Your task to perform on an android device: Open the calendar and show me this week's events? Image 0: 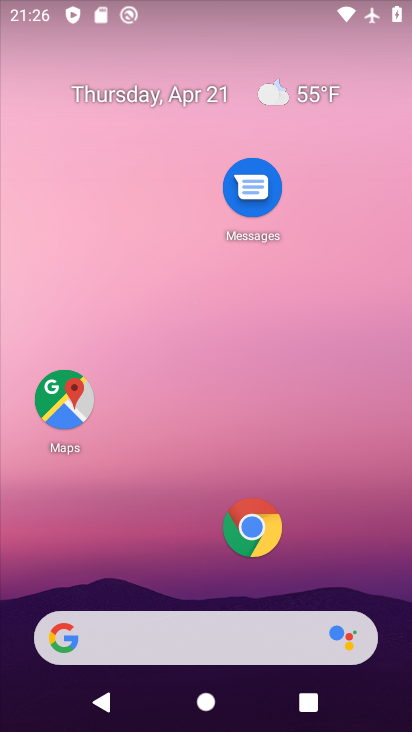
Step 0: drag from (170, 646) to (258, 160)
Your task to perform on an android device: Open the calendar and show me this week's events? Image 1: 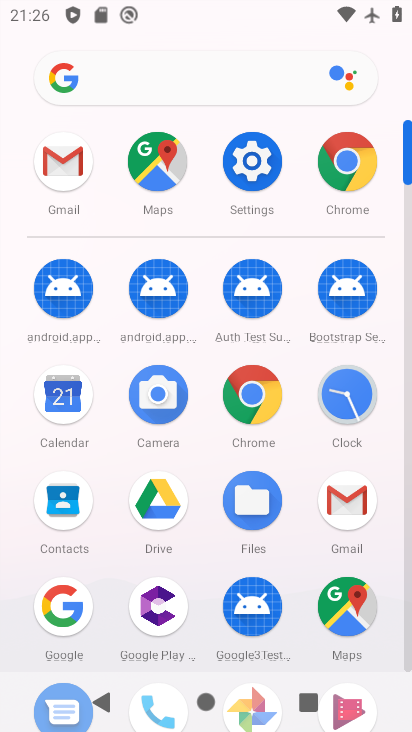
Step 1: click (63, 404)
Your task to perform on an android device: Open the calendar and show me this week's events? Image 2: 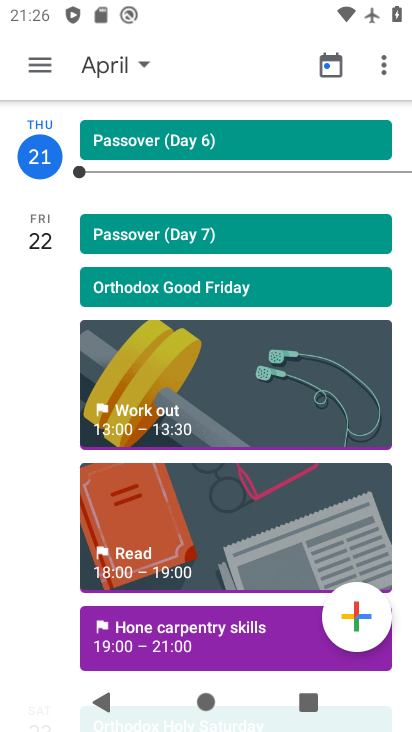
Step 2: click (111, 65)
Your task to perform on an android device: Open the calendar and show me this week's events? Image 3: 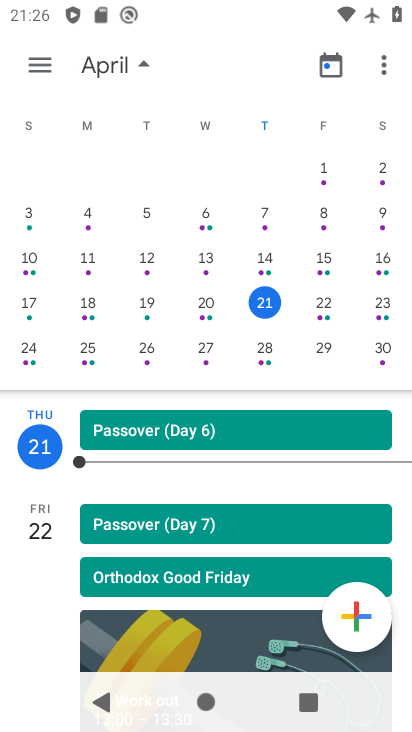
Step 3: click (44, 66)
Your task to perform on an android device: Open the calendar and show me this week's events? Image 4: 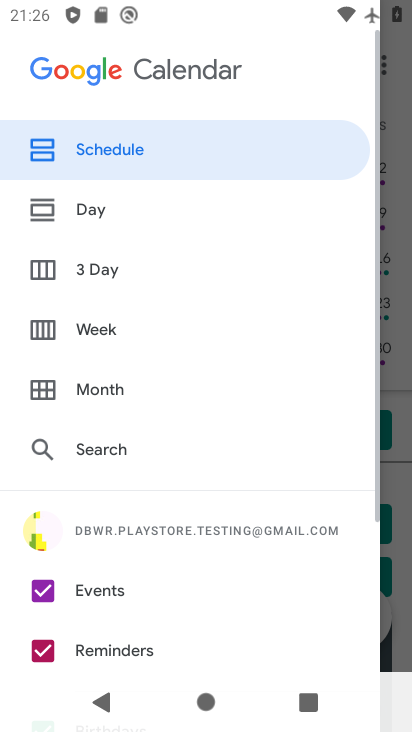
Step 4: click (103, 325)
Your task to perform on an android device: Open the calendar and show me this week's events? Image 5: 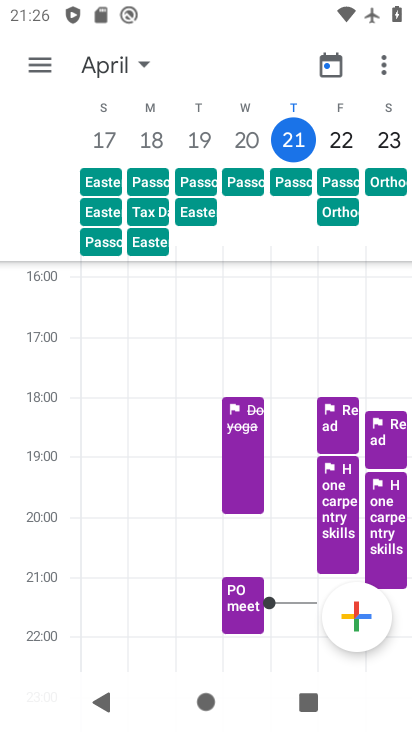
Step 5: click (47, 60)
Your task to perform on an android device: Open the calendar and show me this week's events? Image 6: 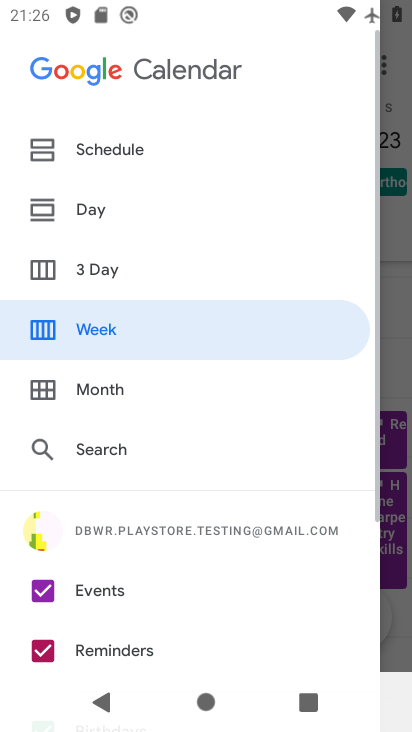
Step 6: click (112, 143)
Your task to perform on an android device: Open the calendar and show me this week's events? Image 7: 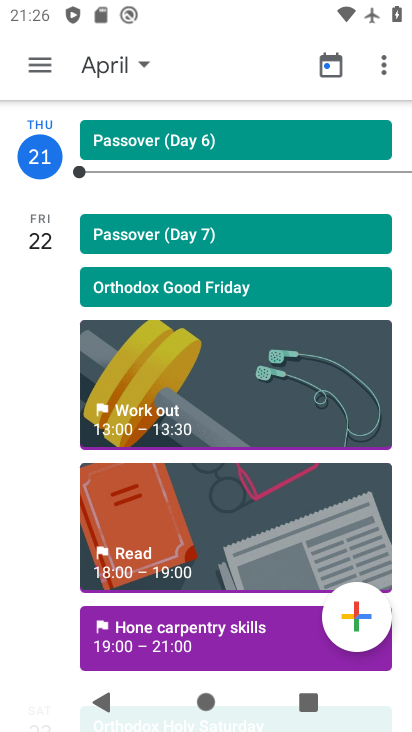
Step 7: drag from (162, 544) to (312, 172)
Your task to perform on an android device: Open the calendar and show me this week's events? Image 8: 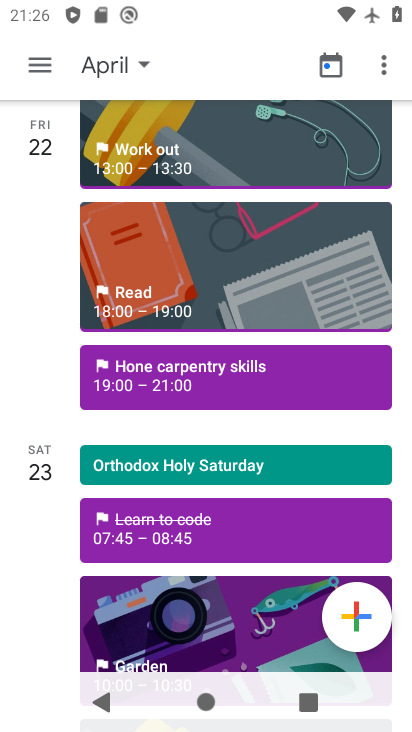
Step 8: click (203, 364)
Your task to perform on an android device: Open the calendar and show me this week's events? Image 9: 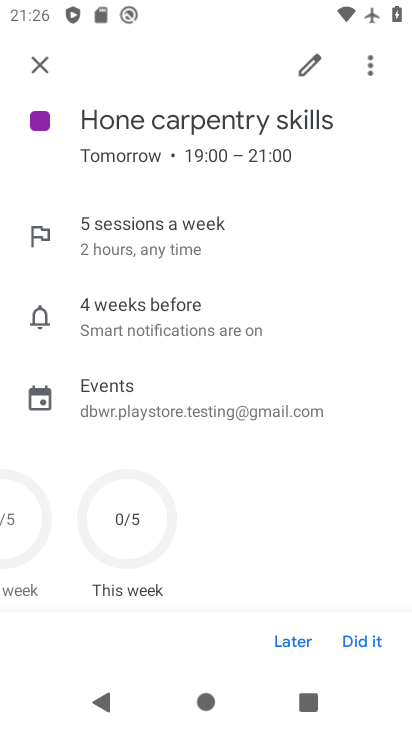
Step 9: task complete